Your task to perform on an android device: turn off improve location accuracy Image 0: 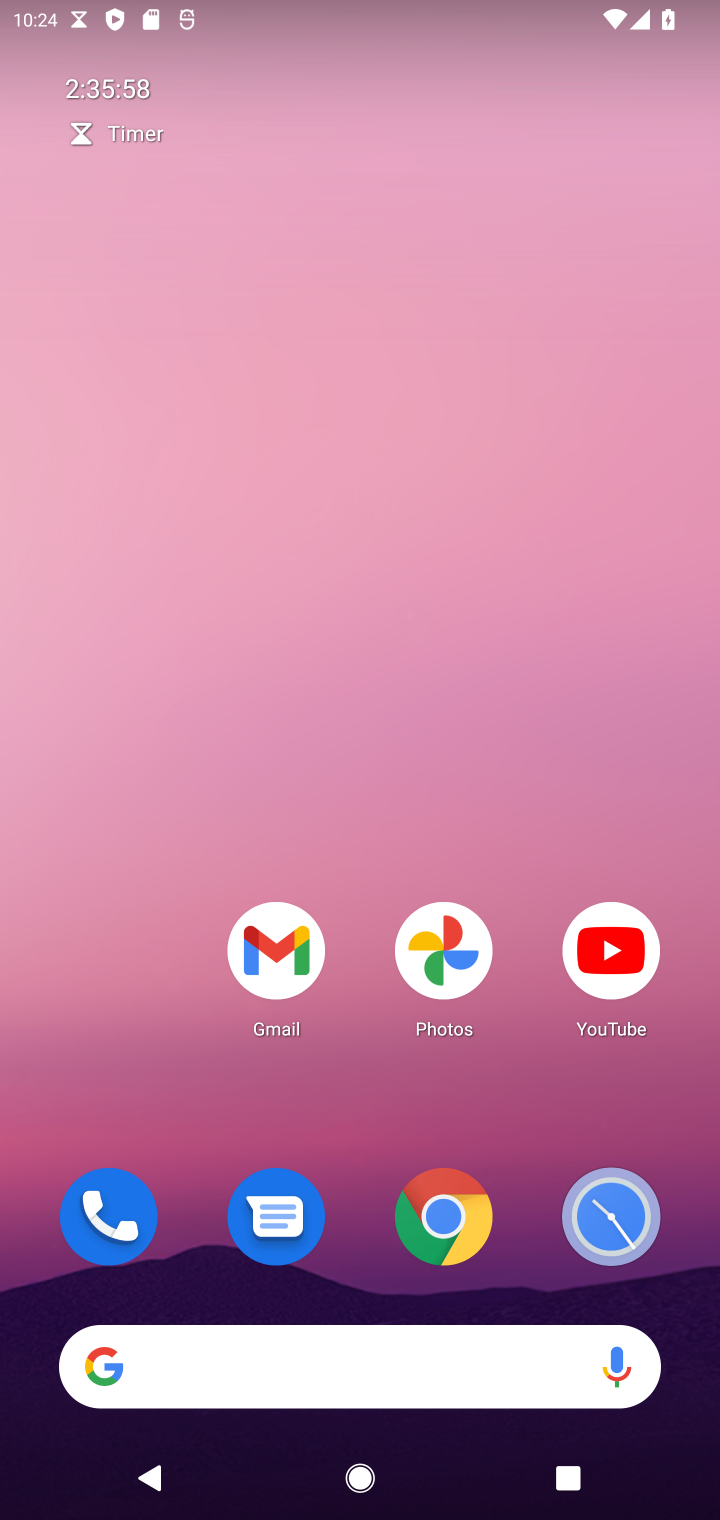
Step 0: drag from (152, 1090) to (389, 25)
Your task to perform on an android device: turn off improve location accuracy Image 1: 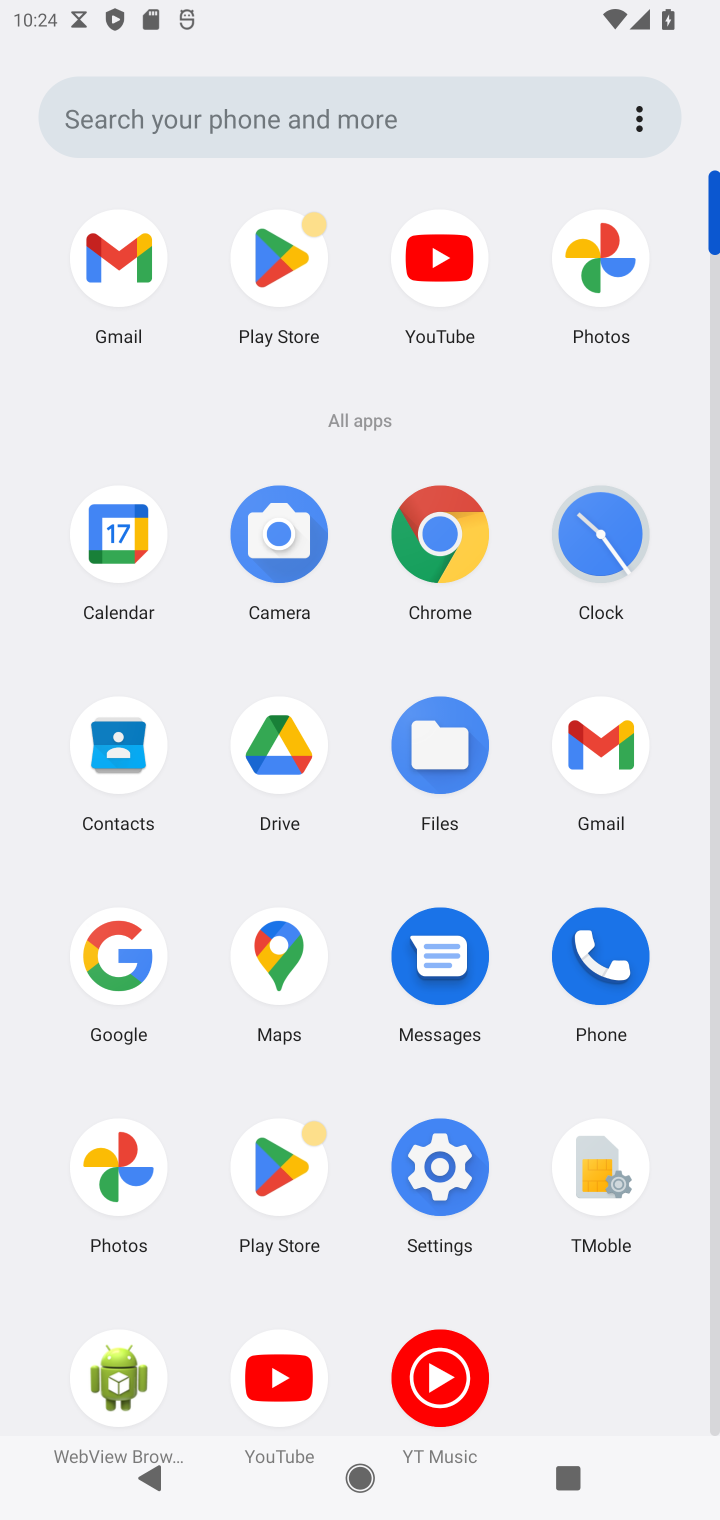
Step 1: click (448, 1164)
Your task to perform on an android device: turn off improve location accuracy Image 2: 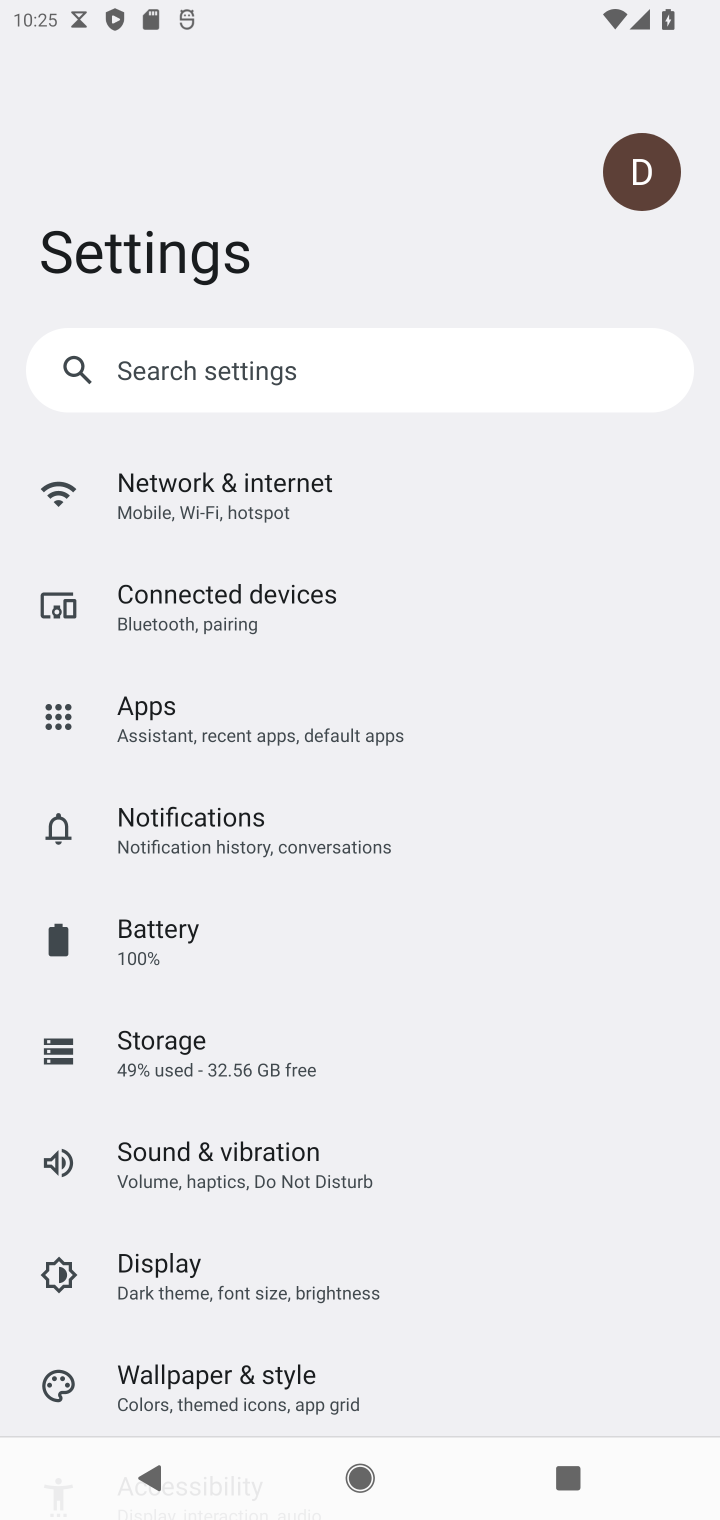
Step 2: drag from (262, 1295) to (307, 372)
Your task to perform on an android device: turn off improve location accuracy Image 3: 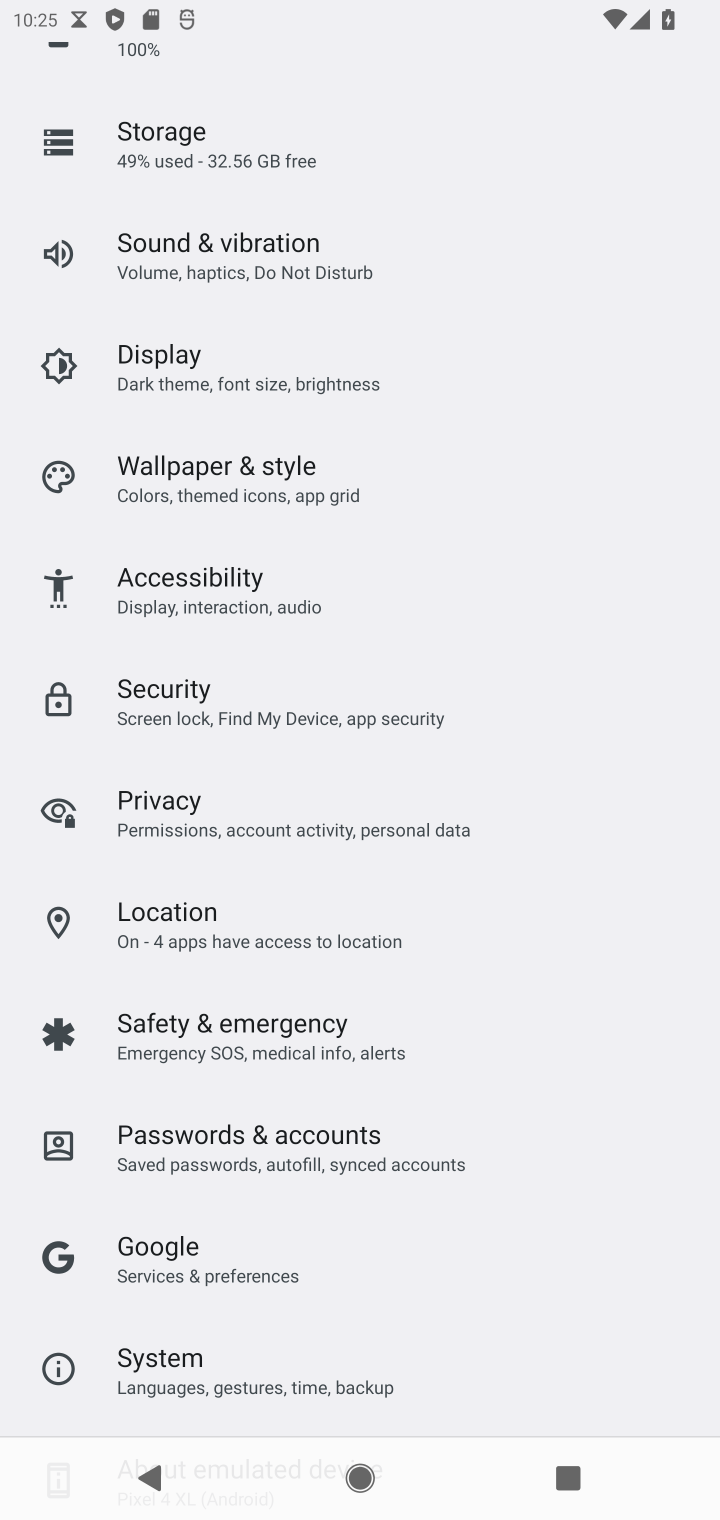
Step 3: click (210, 918)
Your task to perform on an android device: turn off improve location accuracy Image 4: 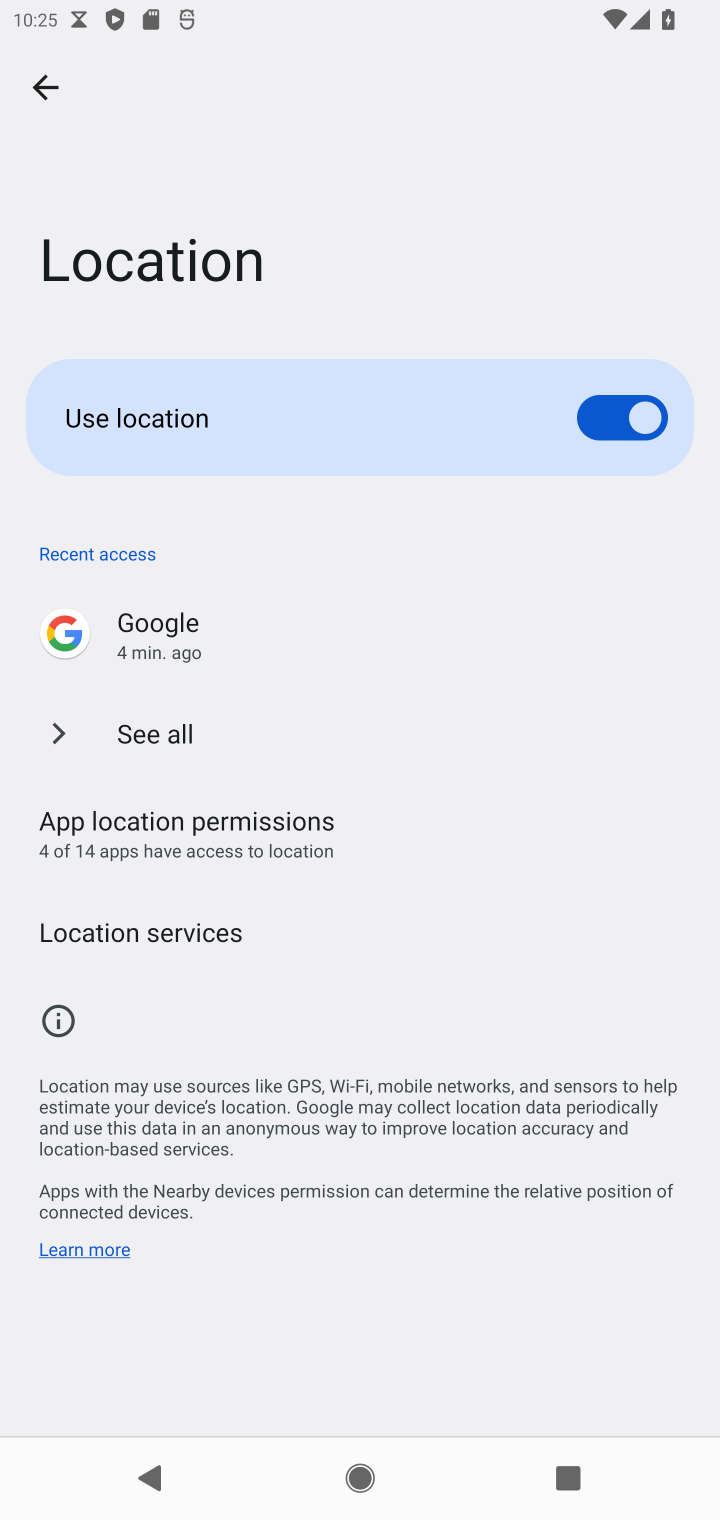
Step 4: click (192, 936)
Your task to perform on an android device: turn off improve location accuracy Image 5: 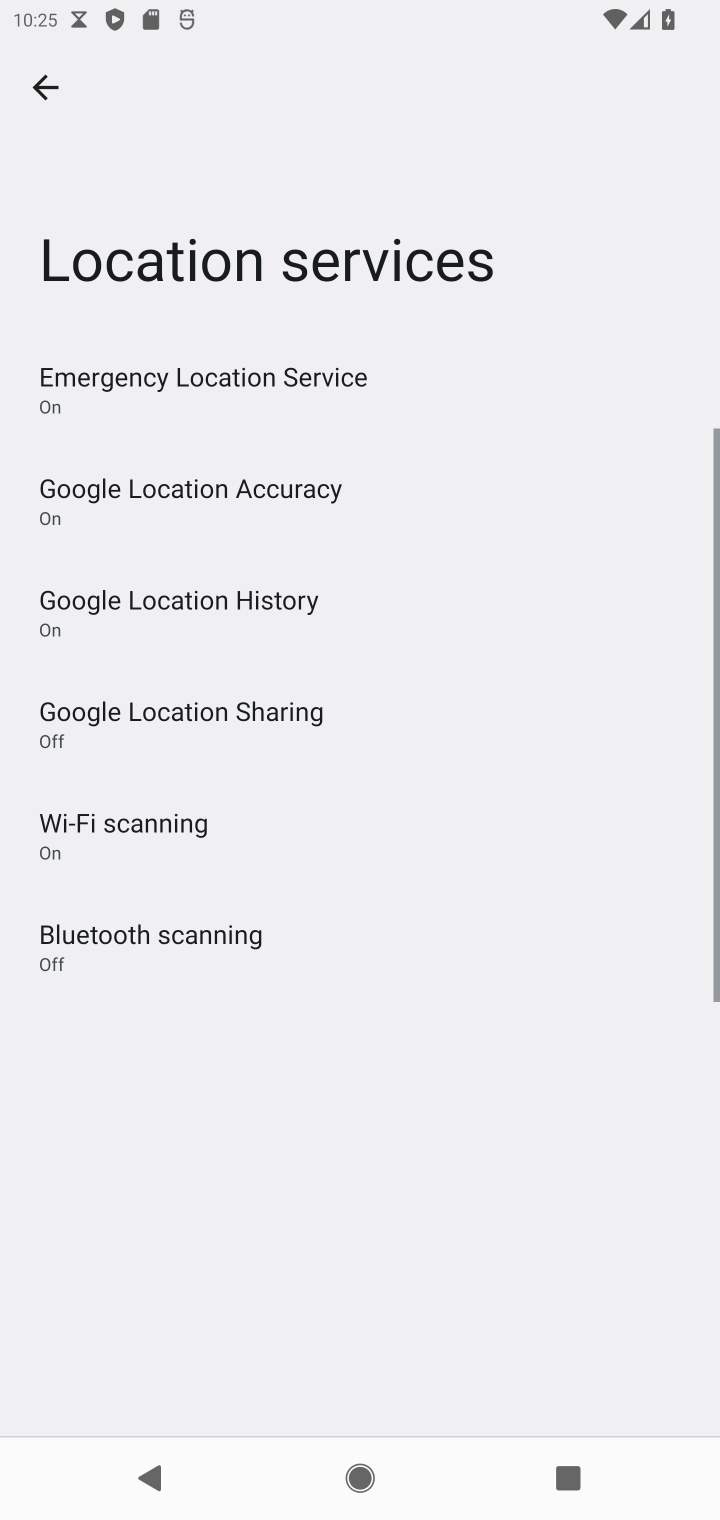
Step 5: click (271, 480)
Your task to perform on an android device: turn off improve location accuracy Image 6: 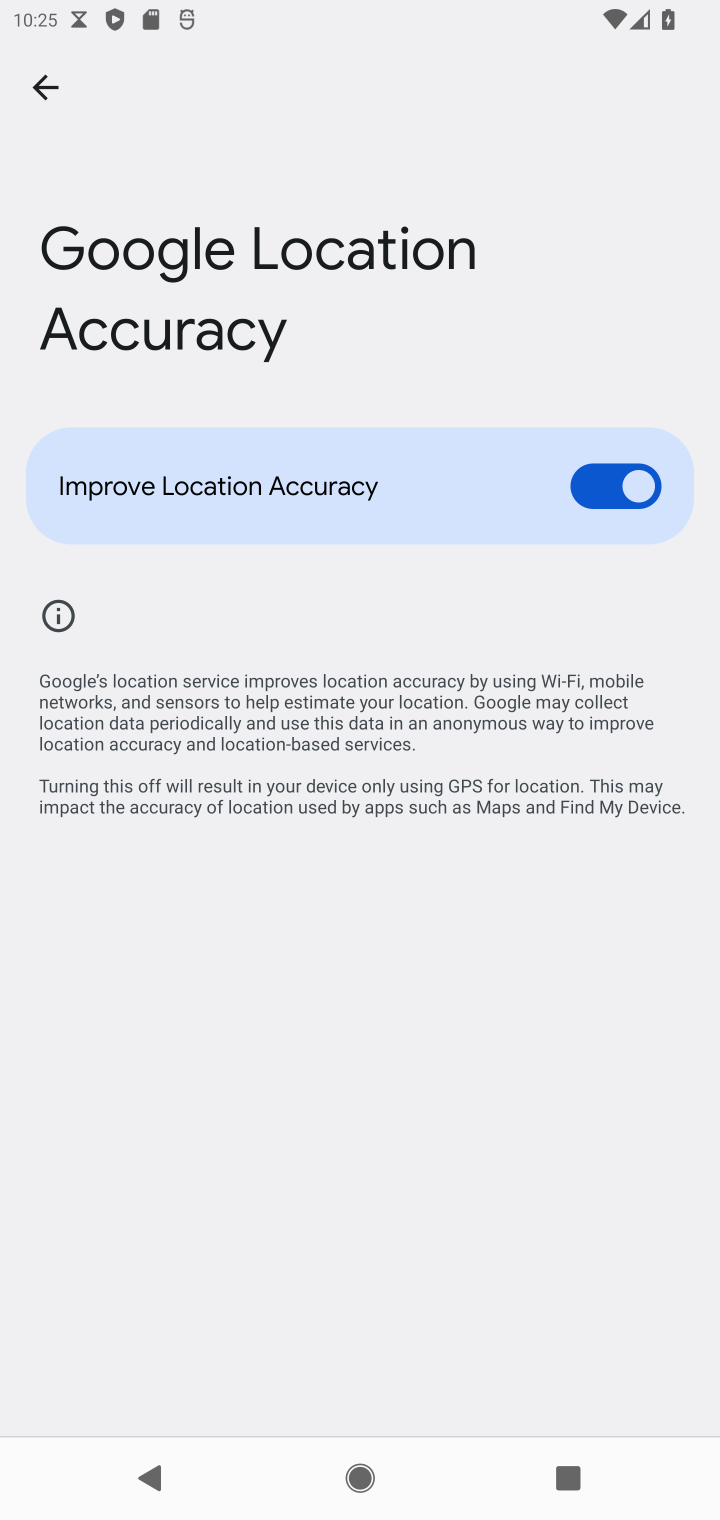
Step 6: click (614, 480)
Your task to perform on an android device: turn off improve location accuracy Image 7: 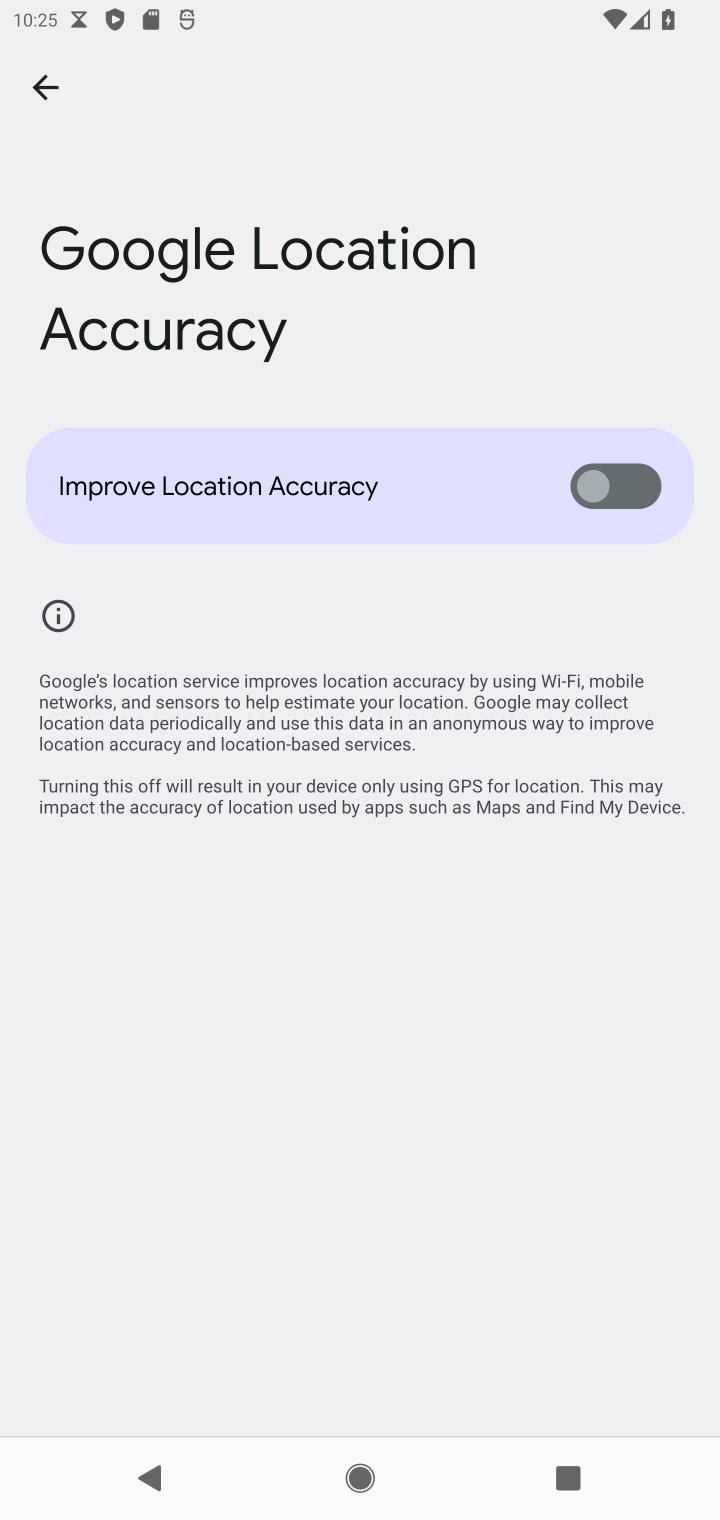
Step 7: task complete